Your task to perform on an android device: change alarm snooze length Image 0: 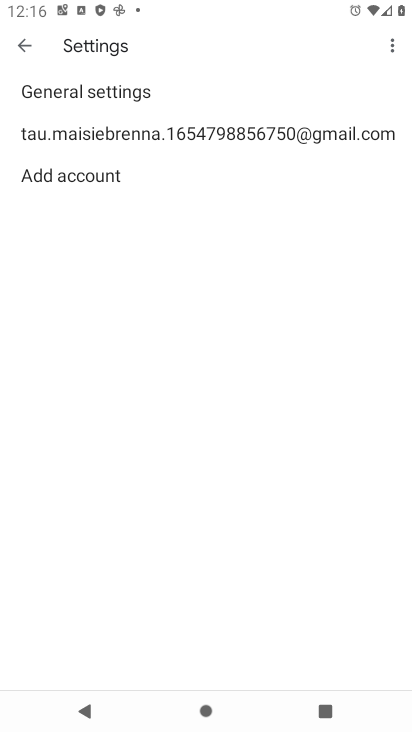
Step 0: press home button
Your task to perform on an android device: change alarm snooze length Image 1: 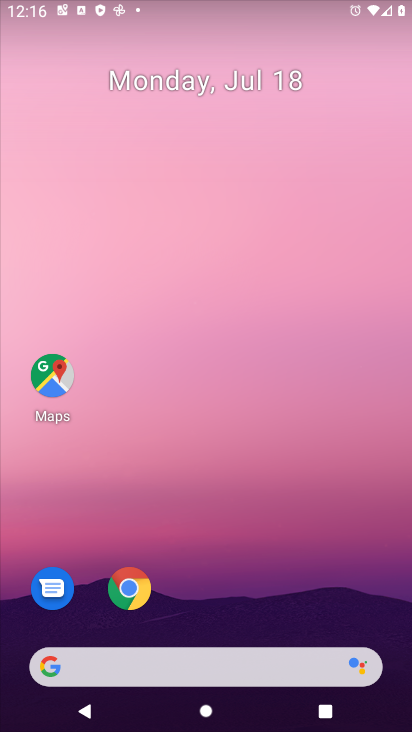
Step 1: drag from (193, 615) to (347, 98)
Your task to perform on an android device: change alarm snooze length Image 2: 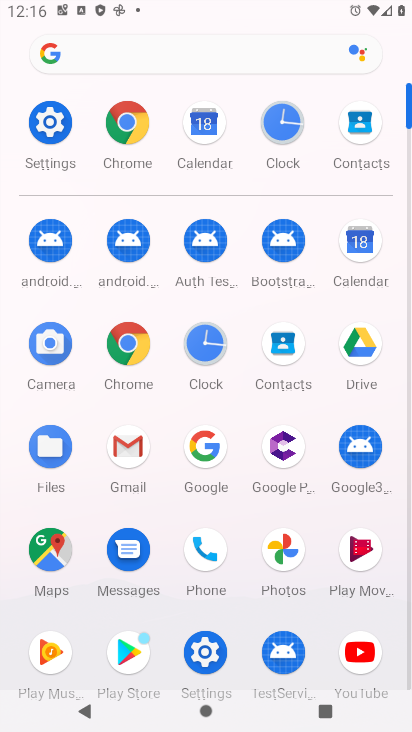
Step 2: click (278, 137)
Your task to perform on an android device: change alarm snooze length Image 3: 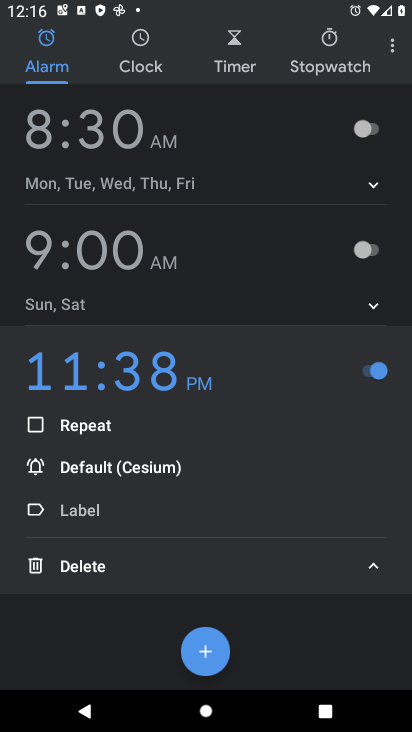
Step 3: click (396, 54)
Your task to perform on an android device: change alarm snooze length Image 4: 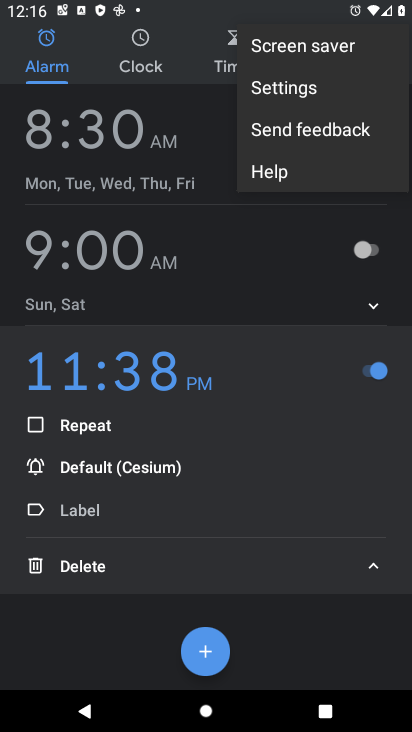
Step 4: click (288, 91)
Your task to perform on an android device: change alarm snooze length Image 5: 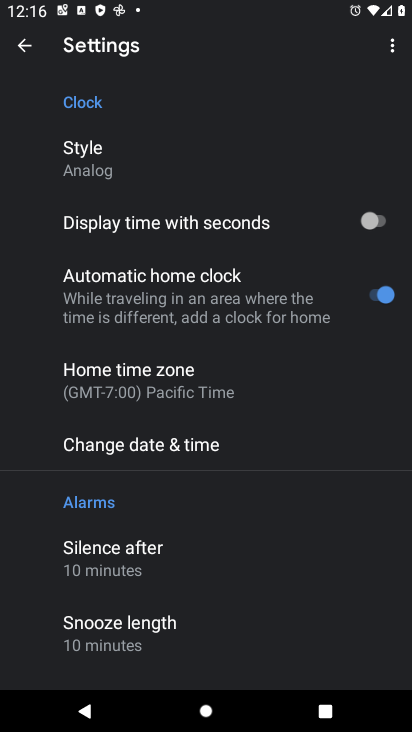
Step 5: click (137, 635)
Your task to perform on an android device: change alarm snooze length Image 6: 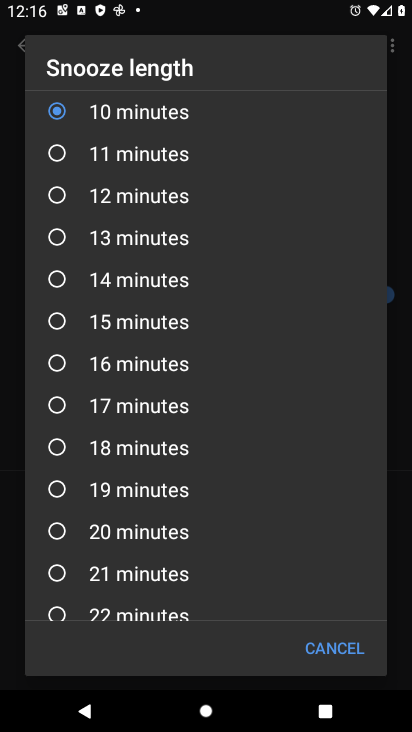
Step 6: click (107, 202)
Your task to perform on an android device: change alarm snooze length Image 7: 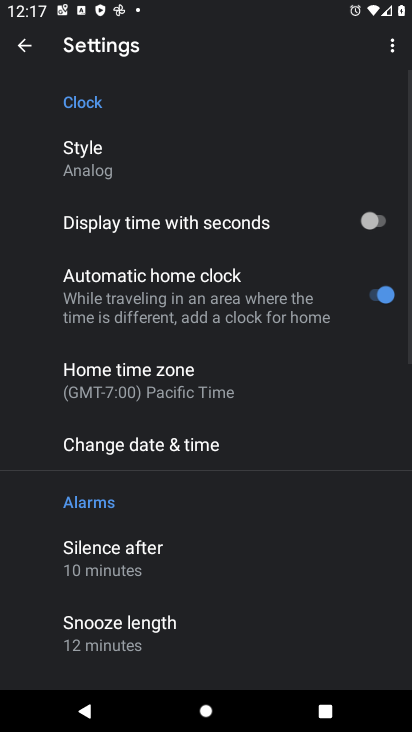
Step 7: task complete